Your task to perform on an android device: toggle wifi Image 0: 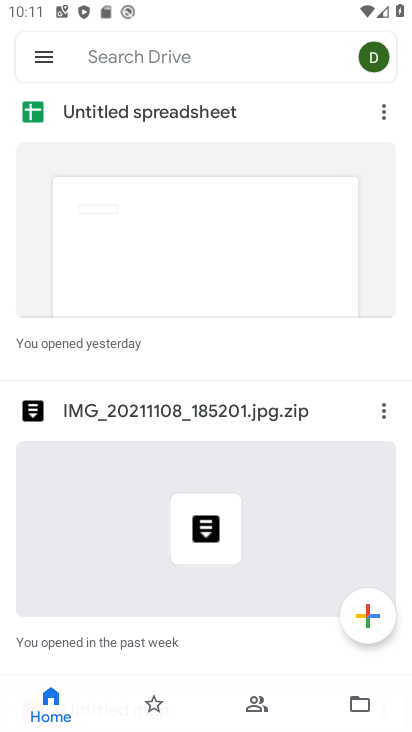
Step 0: drag from (179, 17) to (239, 655)
Your task to perform on an android device: toggle wifi Image 1: 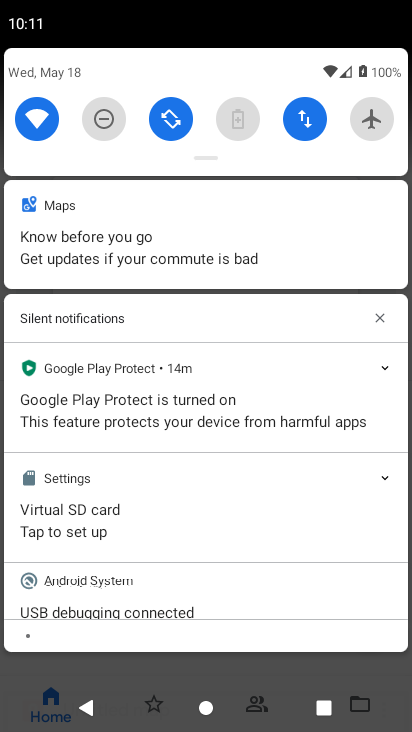
Step 1: click (36, 111)
Your task to perform on an android device: toggle wifi Image 2: 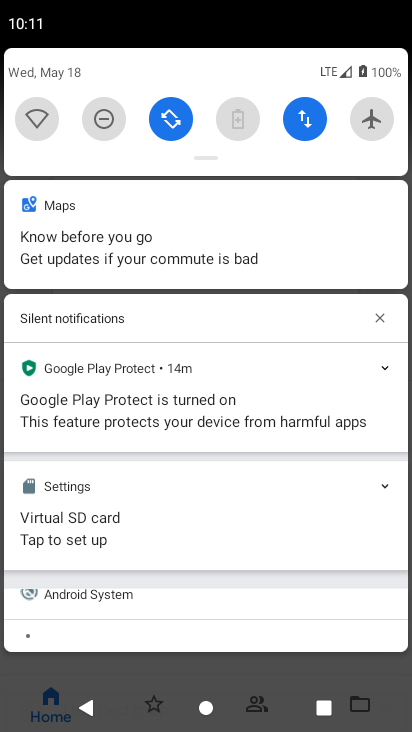
Step 2: click (36, 111)
Your task to perform on an android device: toggle wifi Image 3: 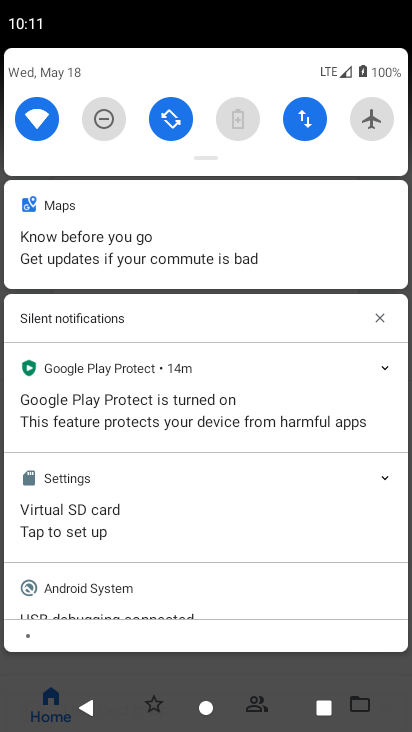
Step 3: task complete